Your task to perform on an android device: move a message to another label in the gmail app Image 0: 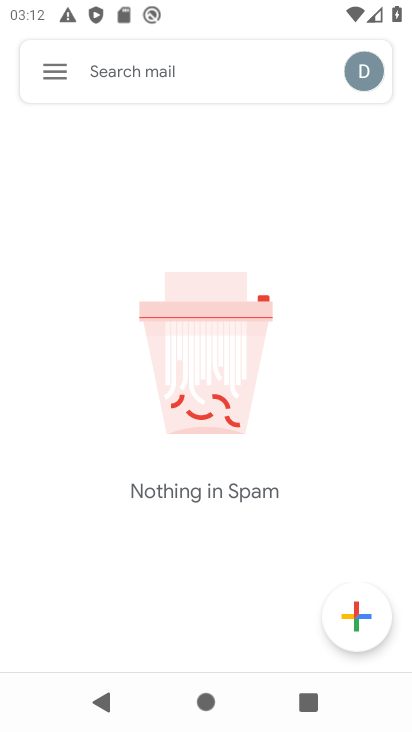
Step 0: click (36, 72)
Your task to perform on an android device: move a message to another label in the gmail app Image 1: 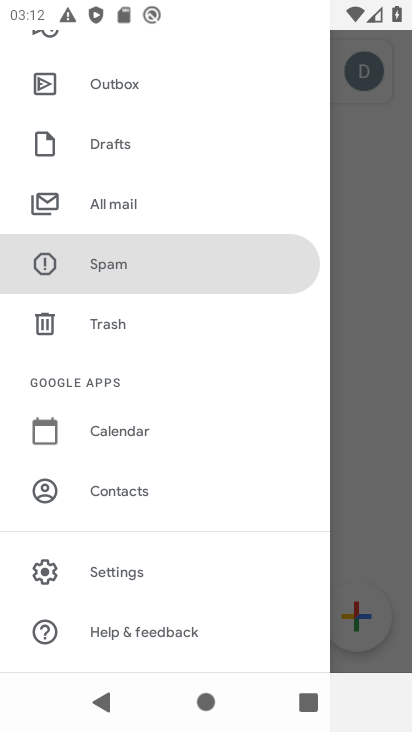
Step 1: click (106, 191)
Your task to perform on an android device: move a message to another label in the gmail app Image 2: 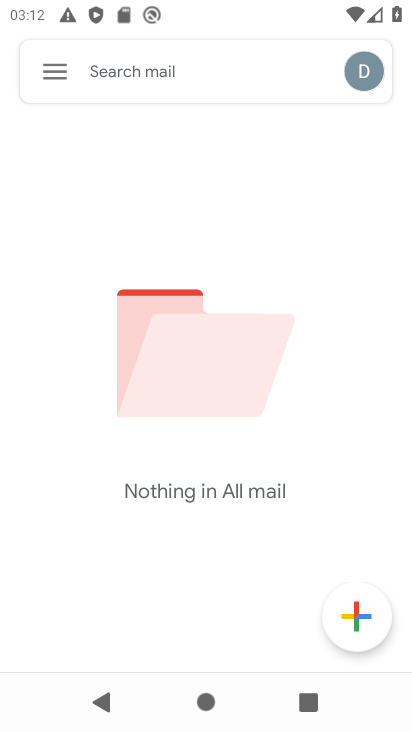
Step 2: task complete